Your task to perform on an android device: Check the weather Image 0: 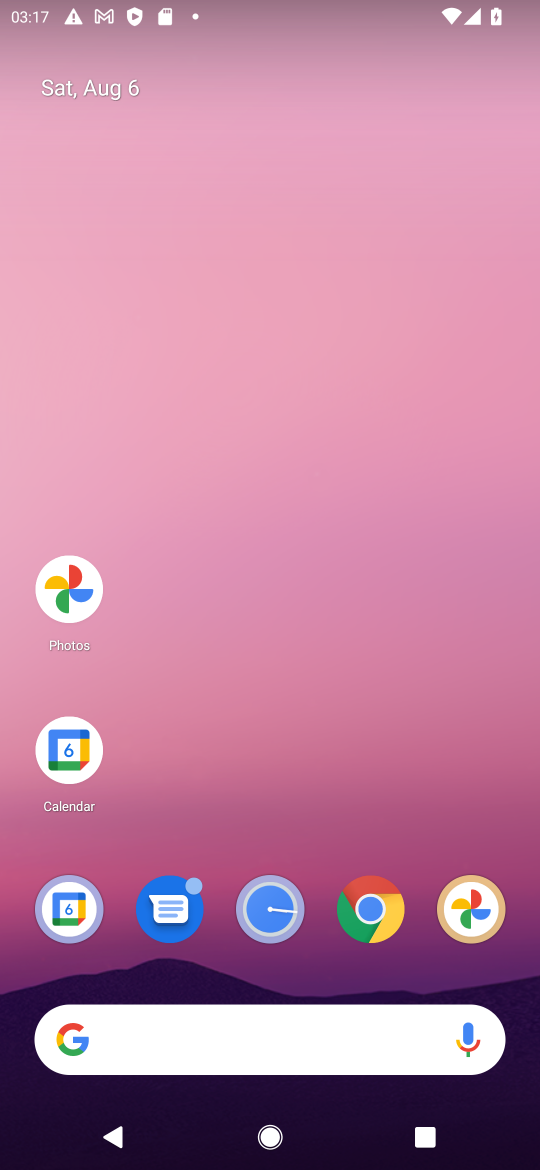
Step 0: click (245, 1030)
Your task to perform on an android device: Check the weather Image 1: 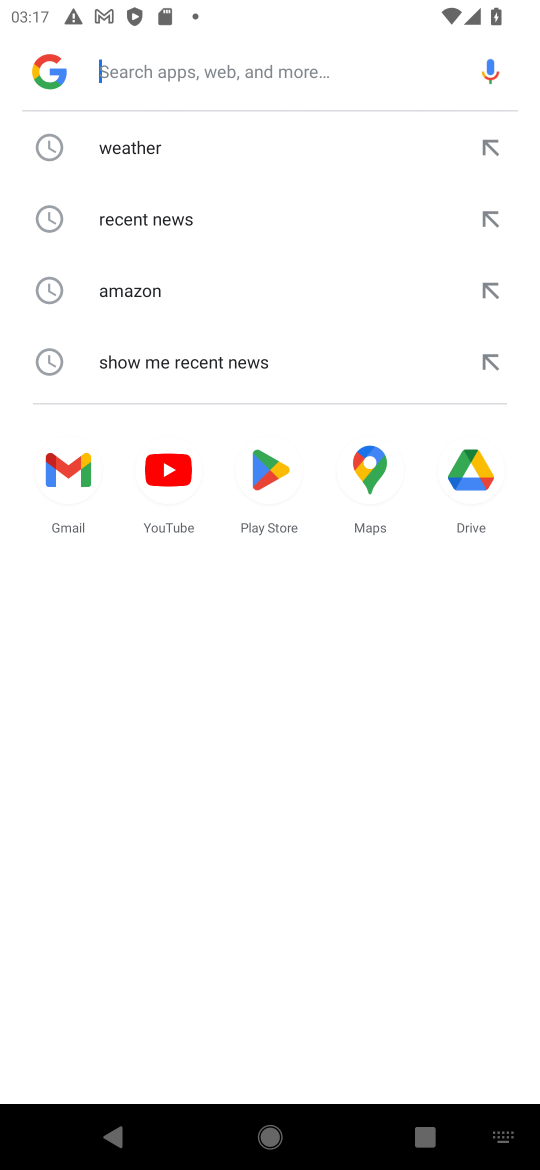
Step 1: click (124, 130)
Your task to perform on an android device: Check the weather Image 2: 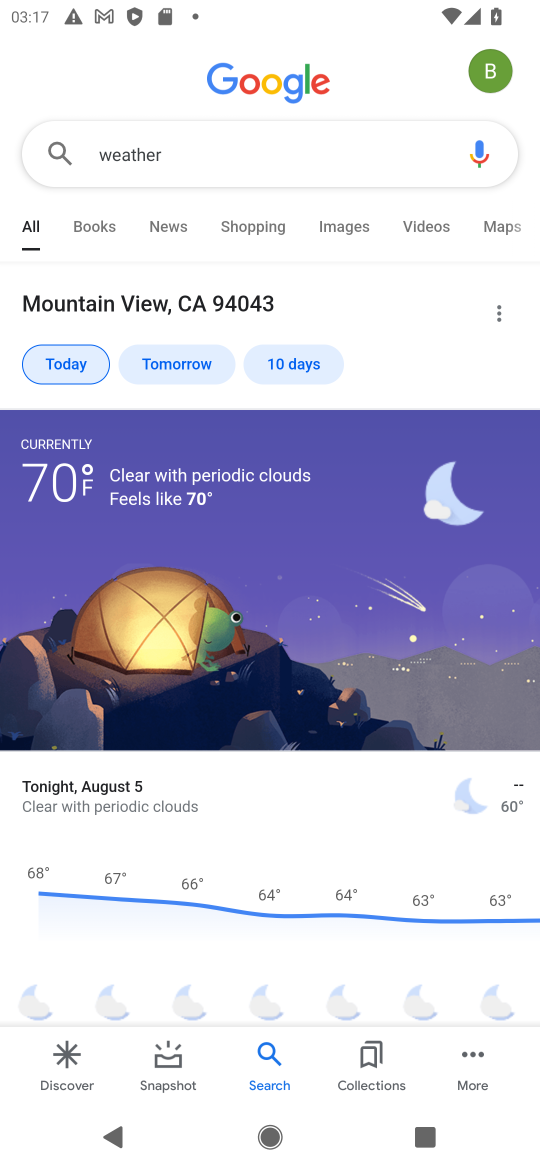
Step 2: click (304, 211)
Your task to perform on an android device: Check the weather Image 3: 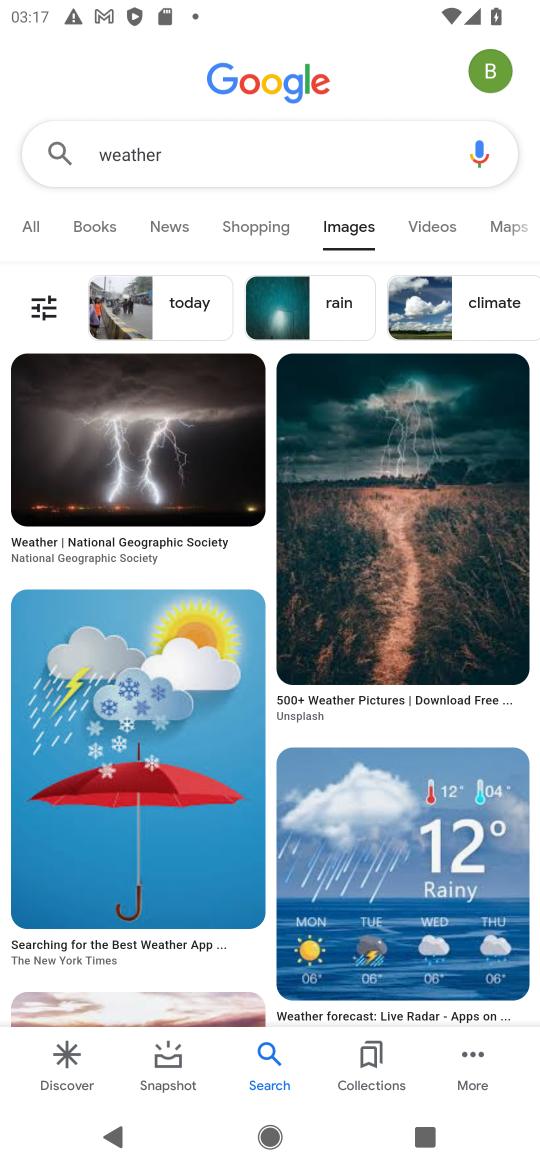
Step 3: task complete